Your task to perform on an android device: Open battery settings Image 0: 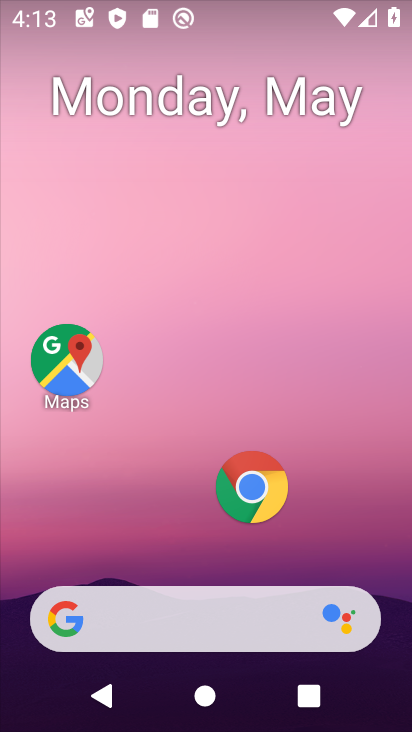
Step 0: drag from (171, 707) to (170, 50)
Your task to perform on an android device: Open battery settings Image 1: 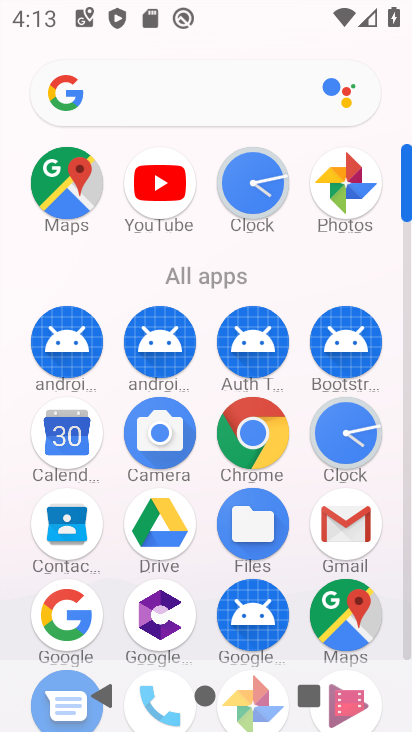
Step 1: drag from (120, 449) to (155, 157)
Your task to perform on an android device: Open battery settings Image 2: 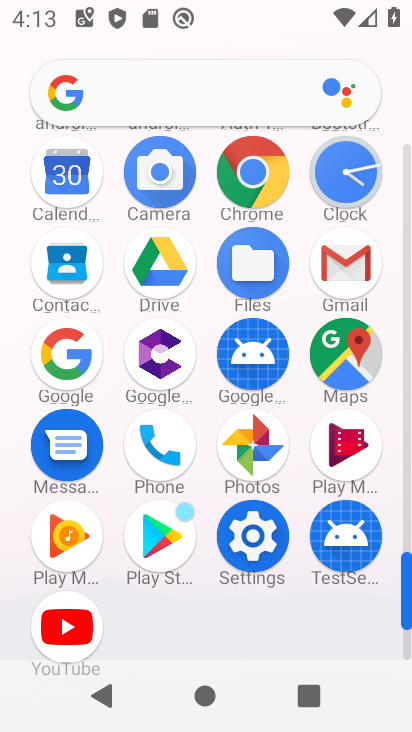
Step 2: click (259, 563)
Your task to perform on an android device: Open battery settings Image 3: 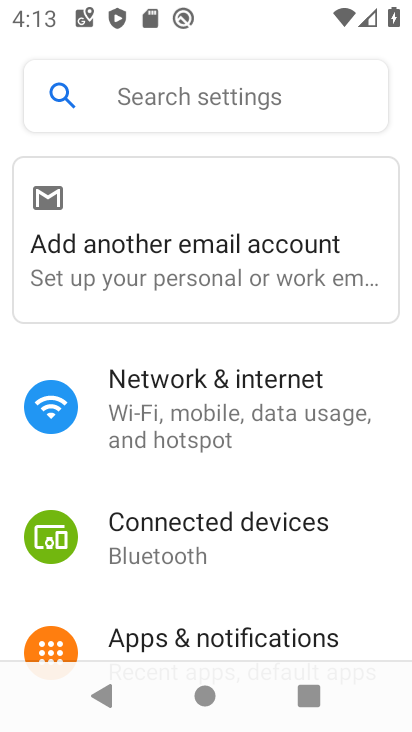
Step 3: drag from (274, 608) to (235, 145)
Your task to perform on an android device: Open battery settings Image 4: 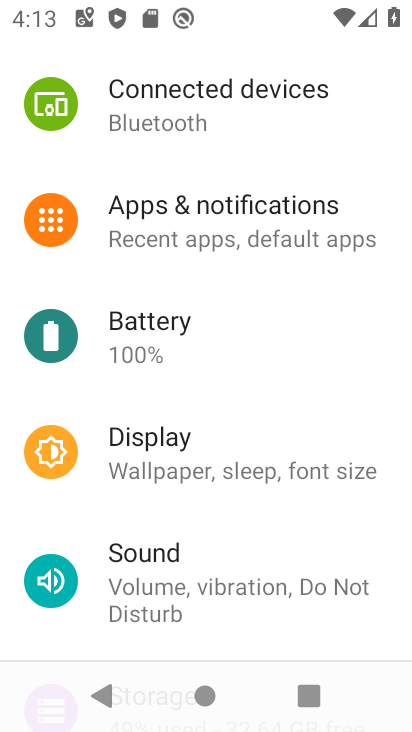
Step 4: click (196, 369)
Your task to perform on an android device: Open battery settings Image 5: 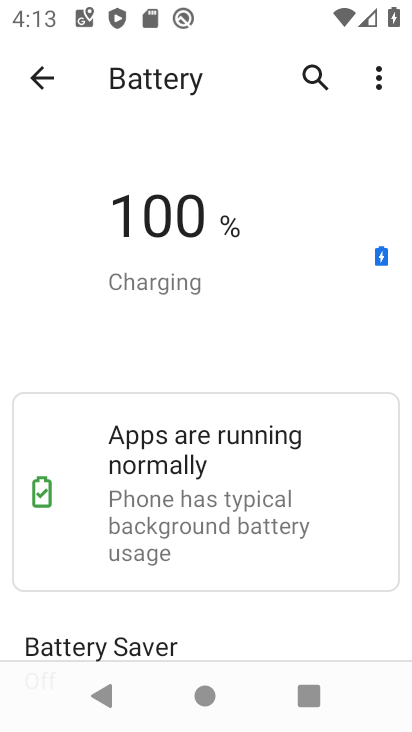
Step 5: task complete